Your task to perform on an android device: Show me popular games on the Play Store Image 0: 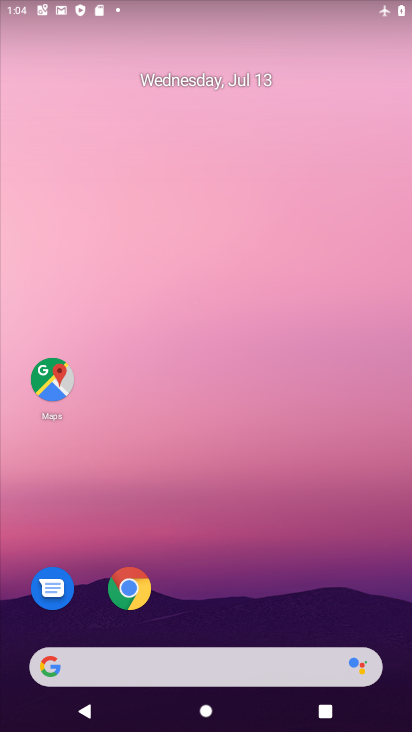
Step 0: drag from (277, 600) to (124, 45)
Your task to perform on an android device: Show me popular games on the Play Store Image 1: 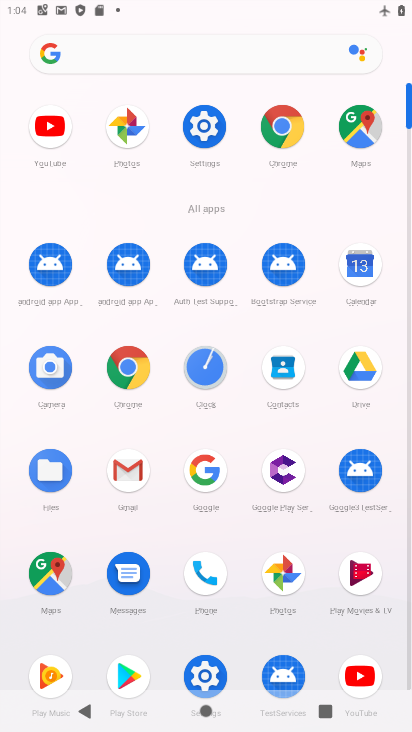
Step 1: click (135, 662)
Your task to perform on an android device: Show me popular games on the Play Store Image 2: 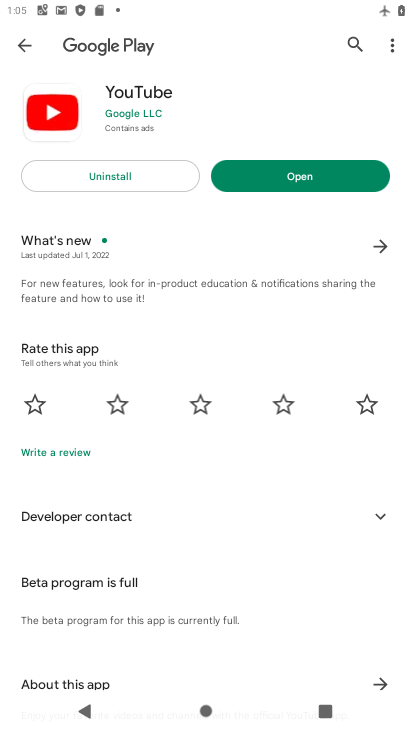
Step 2: click (360, 37)
Your task to perform on an android device: Show me popular games on the Play Store Image 3: 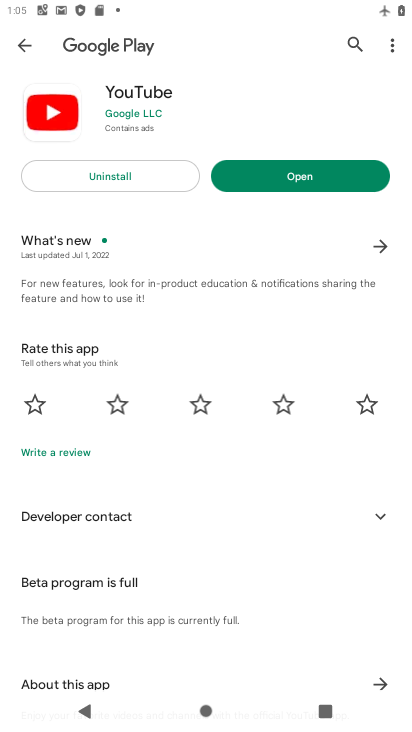
Step 3: drag from (360, 11) to (331, 573)
Your task to perform on an android device: Show me popular games on the Play Store Image 4: 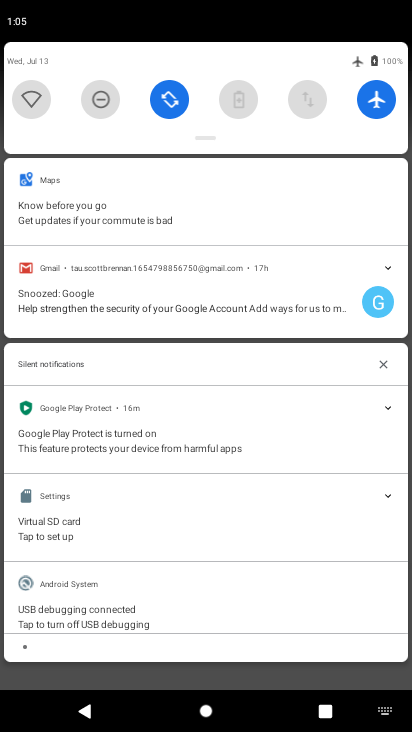
Step 4: click (385, 101)
Your task to perform on an android device: Show me popular games on the Play Store Image 5: 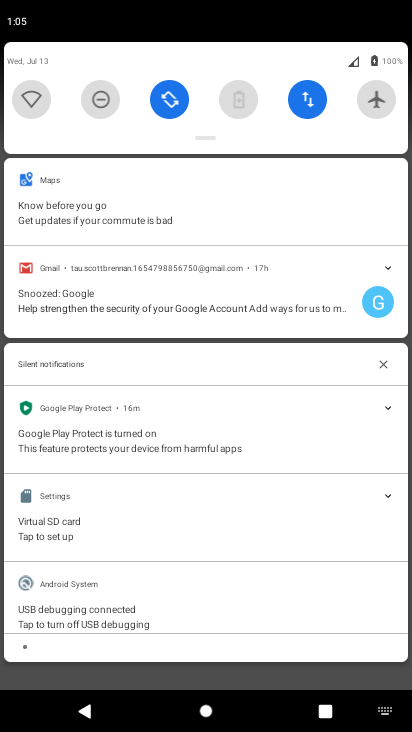
Step 5: drag from (327, 673) to (146, 60)
Your task to perform on an android device: Show me popular games on the Play Store Image 6: 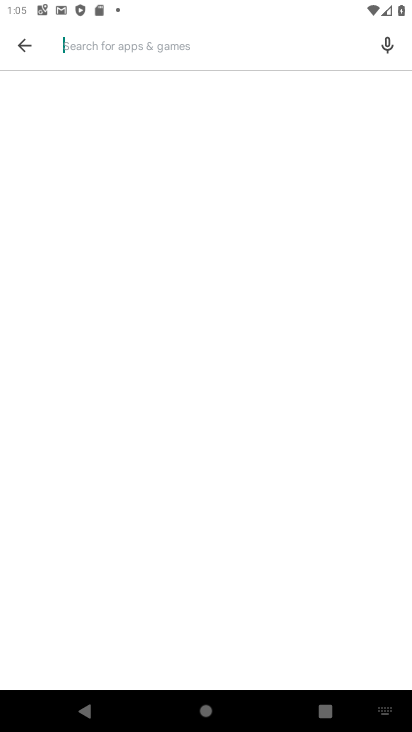
Step 6: type " popular games "
Your task to perform on an android device: Show me popular games on the Play Store Image 7: 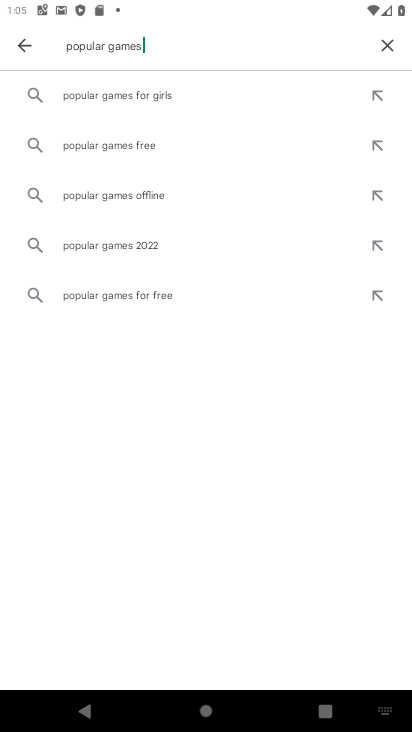
Step 7: click (130, 153)
Your task to perform on an android device: Show me popular games on the Play Store Image 8: 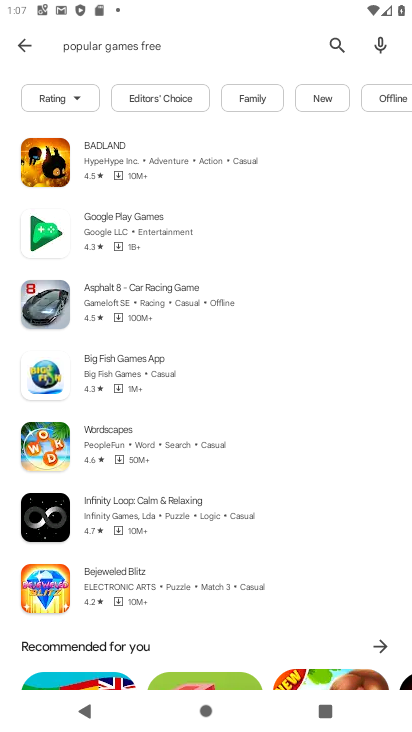
Step 8: task complete